Your task to perform on an android device: Go to network settings Image 0: 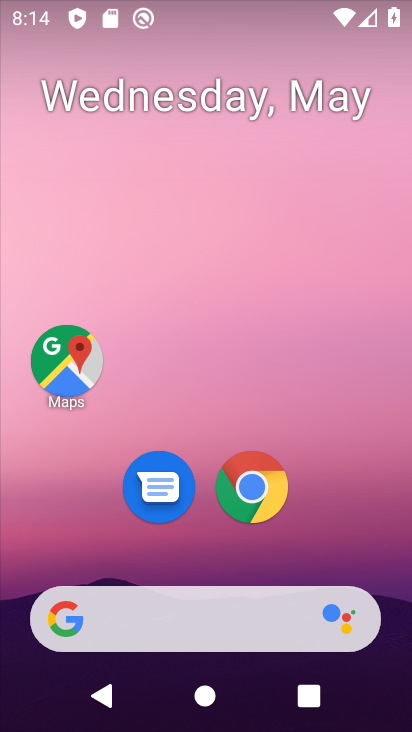
Step 0: drag from (201, 563) to (201, 200)
Your task to perform on an android device: Go to network settings Image 1: 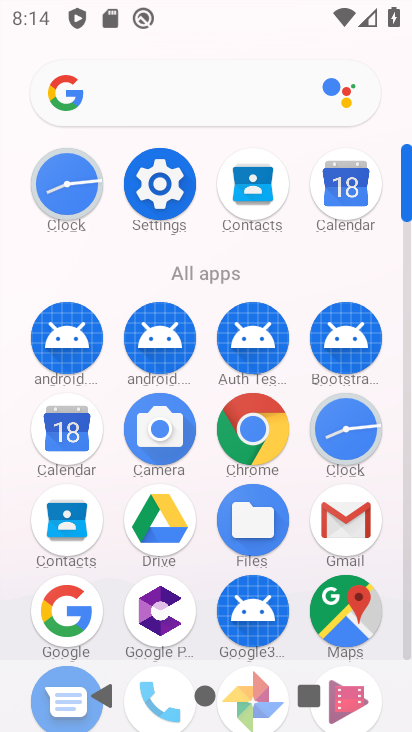
Step 1: click (189, 191)
Your task to perform on an android device: Go to network settings Image 2: 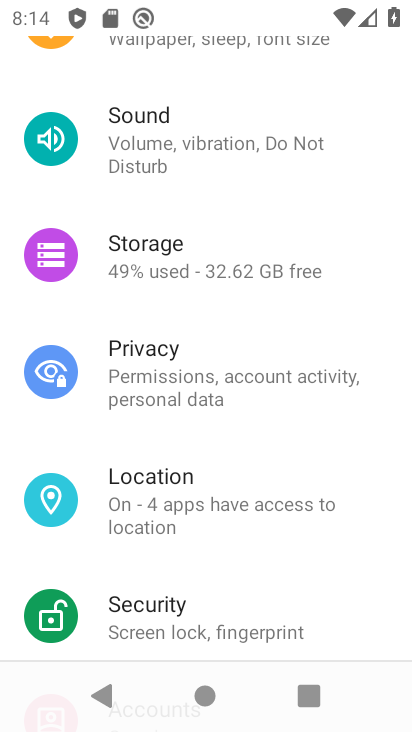
Step 2: drag from (252, 583) to (255, 540)
Your task to perform on an android device: Go to network settings Image 3: 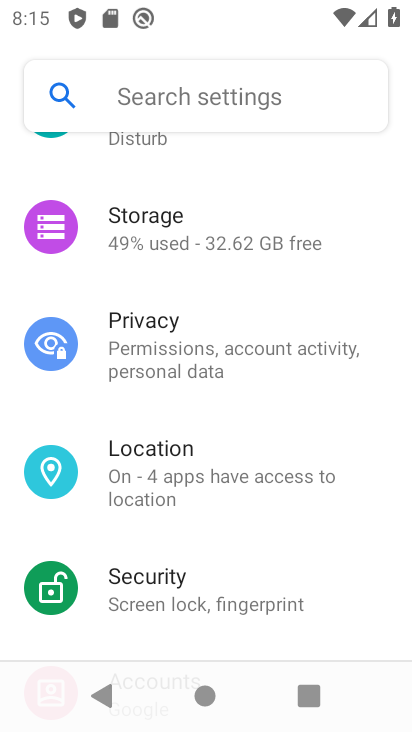
Step 3: drag from (225, 219) to (264, 506)
Your task to perform on an android device: Go to network settings Image 4: 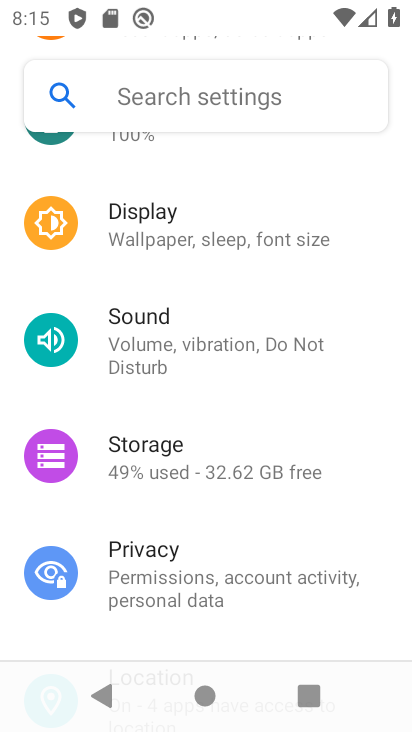
Step 4: drag from (227, 226) to (247, 490)
Your task to perform on an android device: Go to network settings Image 5: 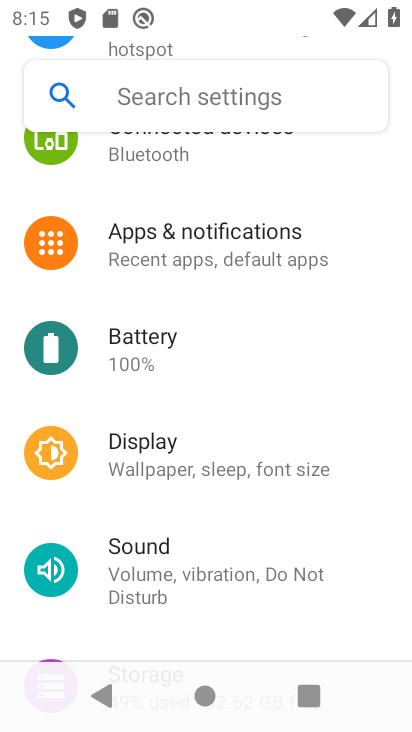
Step 5: drag from (250, 170) to (270, 416)
Your task to perform on an android device: Go to network settings Image 6: 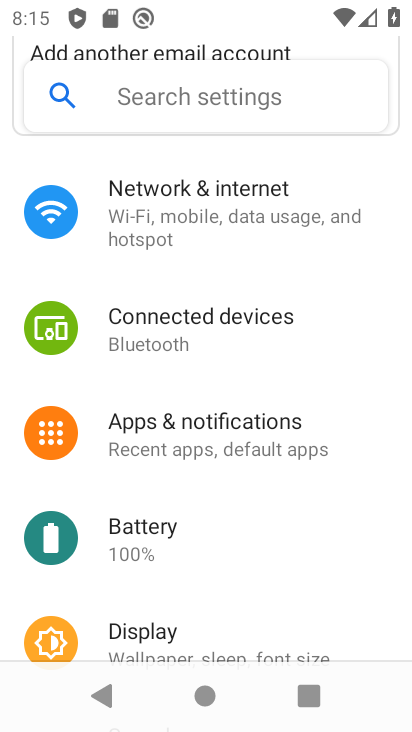
Step 6: drag from (247, 177) to (264, 420)
Your task to perform on an android device: Go to network settings Image 7: 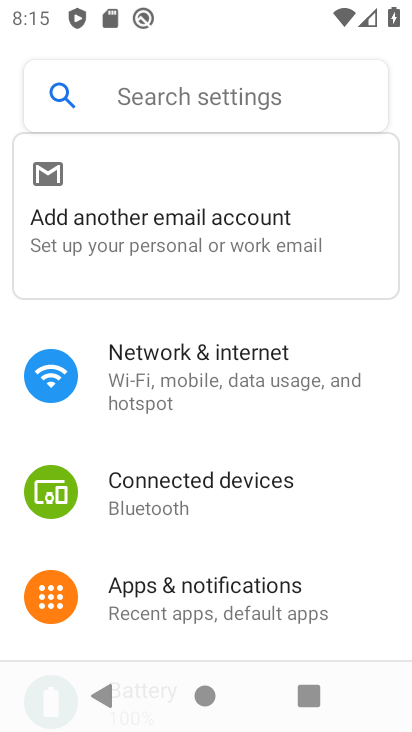
Step 7: click (202, 337)
Your task to perform on an android device: Go to network settings Image 8: 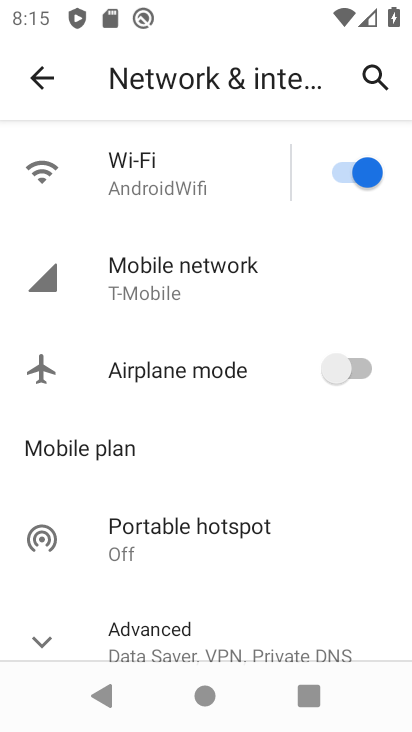
Step 8: click (149, 293)
Your task to perform on an android device: Go to network settings Image 9: 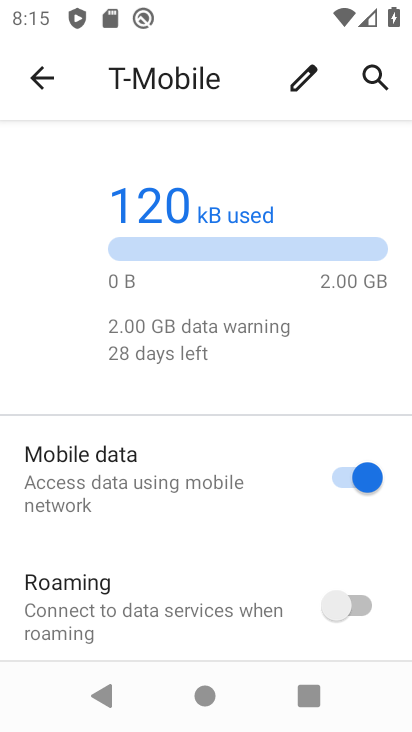
Step 9: task complete